Your task to perform on an android device: Do I have any events tomorrow? Image 0: 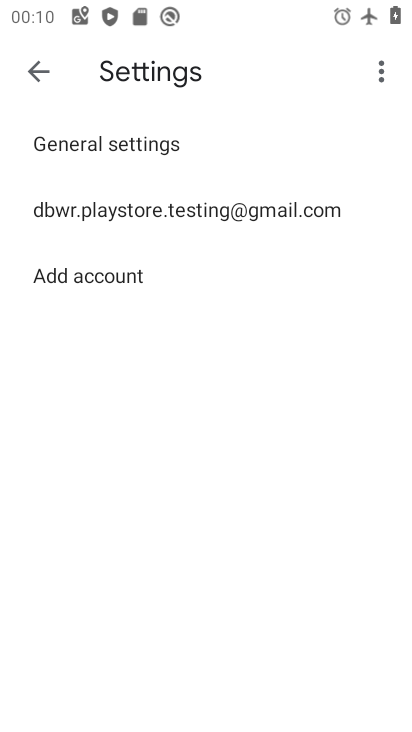
Step 0: press home button
Your task to perform on an android device: Do I have any events tomorrow? Image 1: 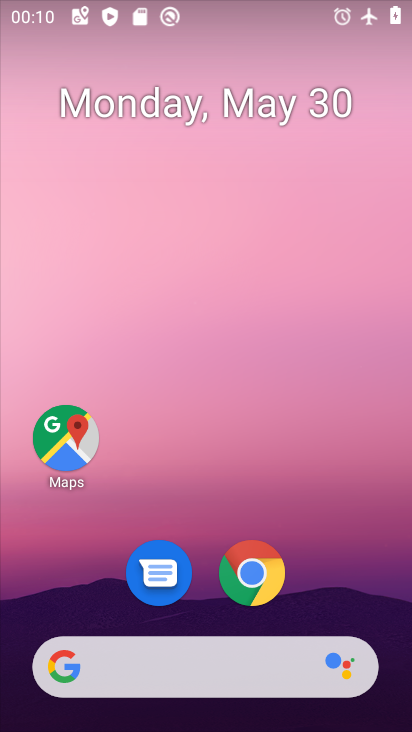
Step 1: drag from (318, 431) to (161, 42)
Your task to perform on an android device: Do I have any events tomorrow? Image 2: 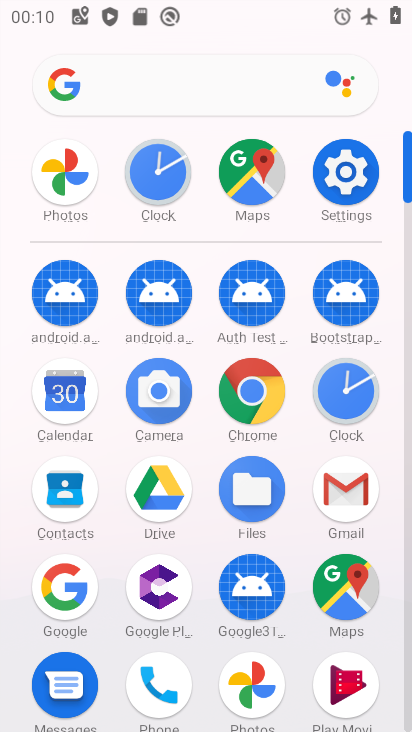
Step 2: click (68, 380)
Your task to perform on an android device: Do I have any events tomorrow? Image 3: 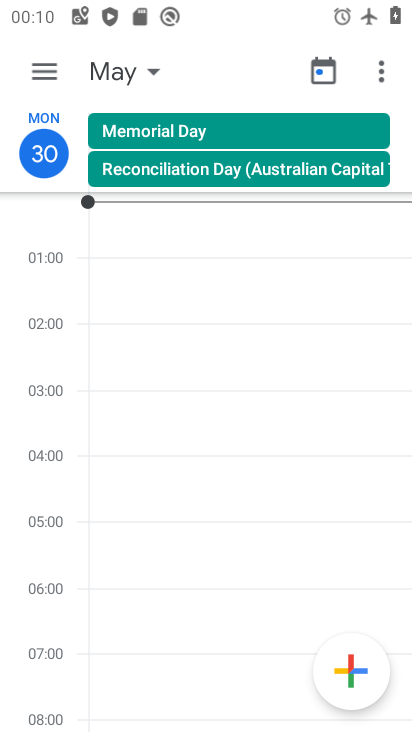
Step 3: drag from (43, 602) to (36, 45)
Your task to perform on an android device: Do I have any events tomorrow? Image 4: 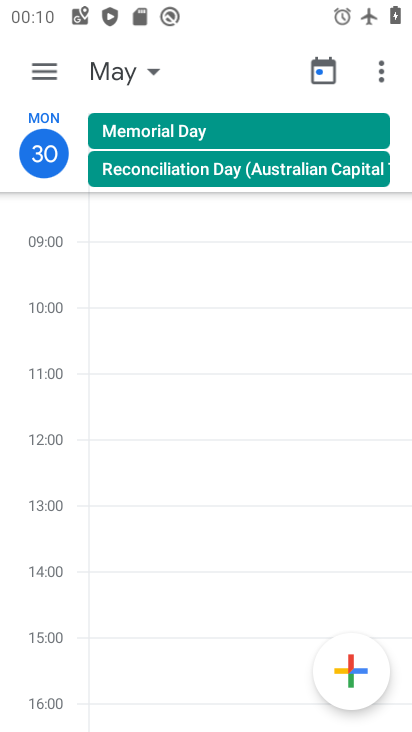
Step 4: drag from (44, 518) to (66, 100)
Your task to perform on an android device: Do I have any events tomorrow? Image 5: 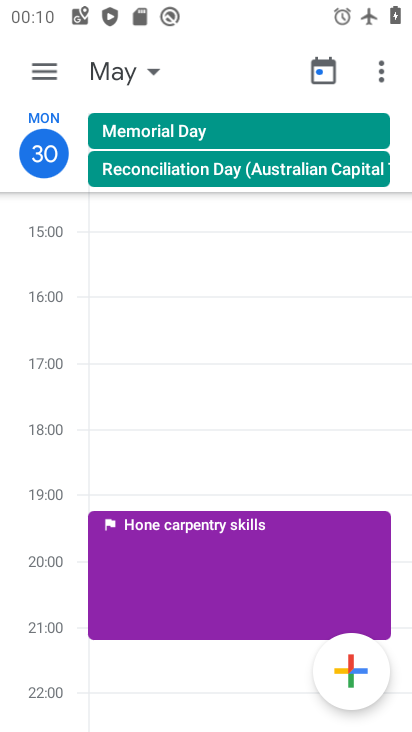
Step 5: drag from (47, 529) to (64, 31)
Your task to perform on an android device: Do I have any events tomorrow? Image 6: 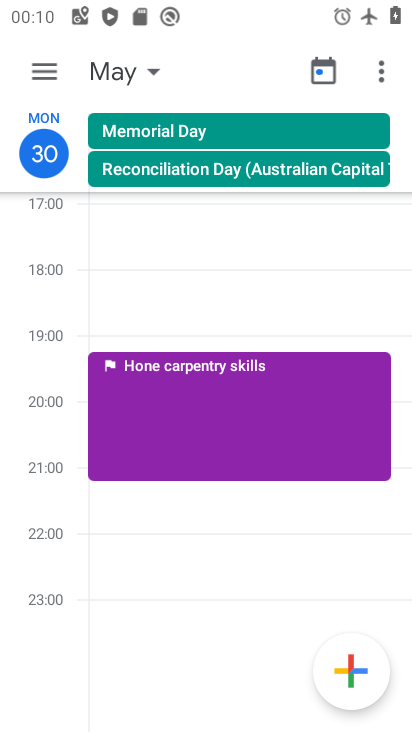
Step 6: drag from (39, 341) to (51, 101)
Your task to perform on an android device: Do I have any events tomorrow? Image 7: 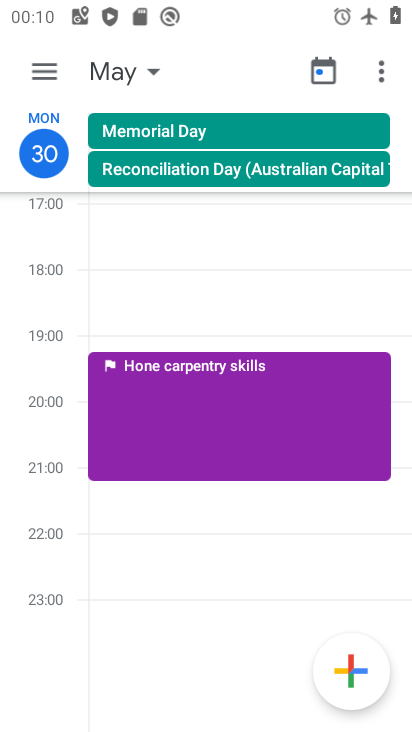
Step 7: click (134, 61)
Your task to perform on an android device: Do I have any events tomorrow? Image 8: 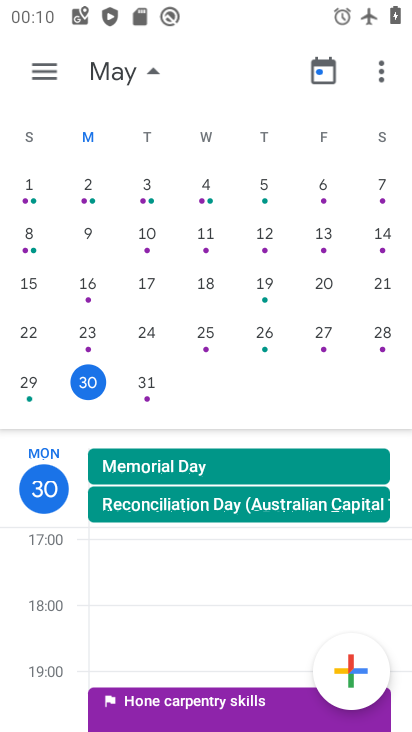
Step 8: click (147, 376)
Your task to perform on an android device: Do I have any events tomorrow? Image 9: 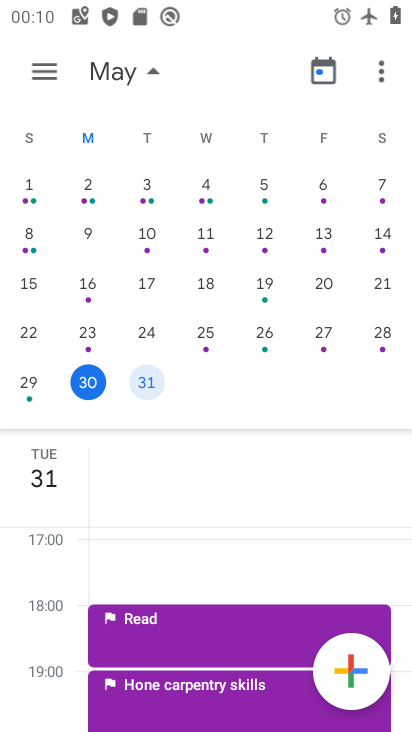
Step 9: click (93, 631)
Your task to perform on an android device: Do I have any events tomorrow? Image 10: 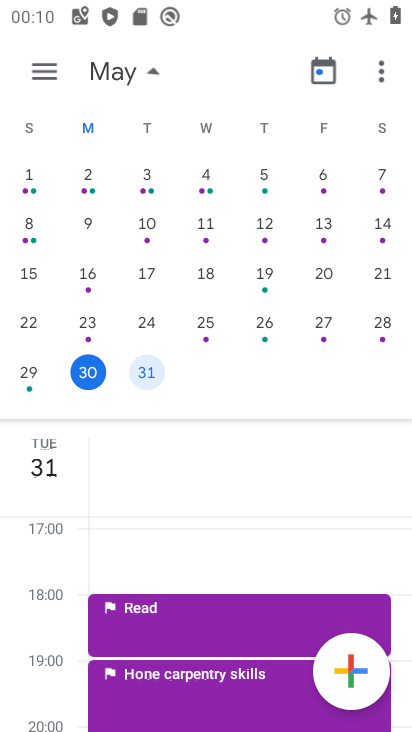
Step 10: task complete